Your task to perform on an android device: open device folders in google photos Image 0: 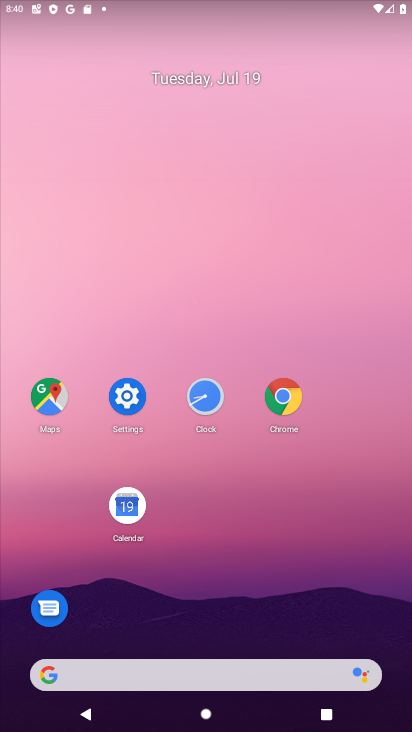
Step 0: drag from (391, 677) to (296, 205)
Your task to perform on an android device: open device folders in google photos Image 1: 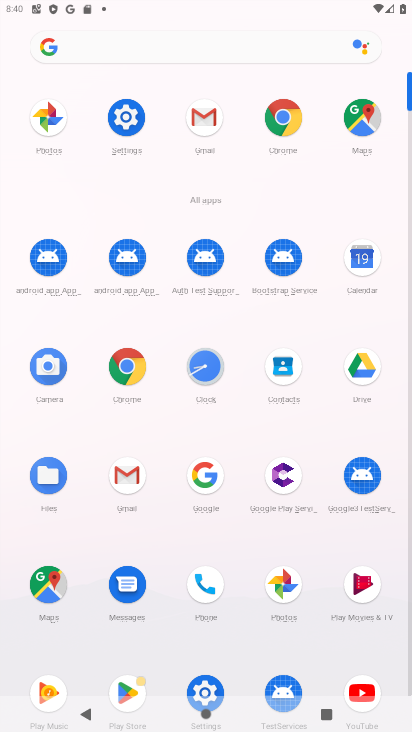
Step 1: click (285, 589)
Your task to perform on an android device: open device folders in google photos Image 2: 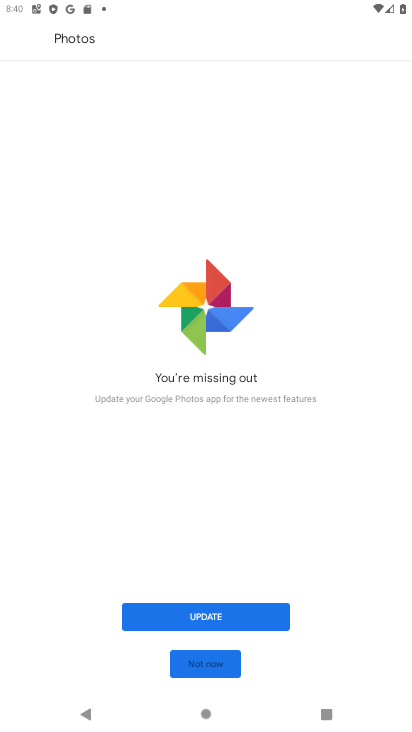
Step 2: click (223, 614)
Your task to perform on an android device: open device folders in google photos Image 3: 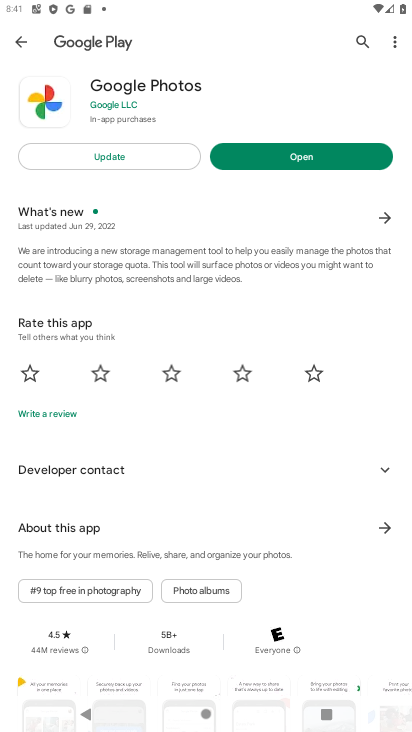
Step 3: click (167, 153)
Your task to perform on an android device: open device folders in google photos Image 4: 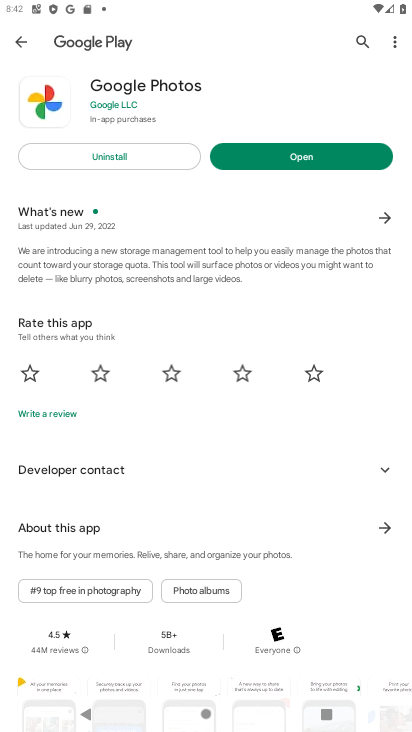
Step 4: click (273, 154)
Your task to perform on an android device: open device folders in google photos Image 5: 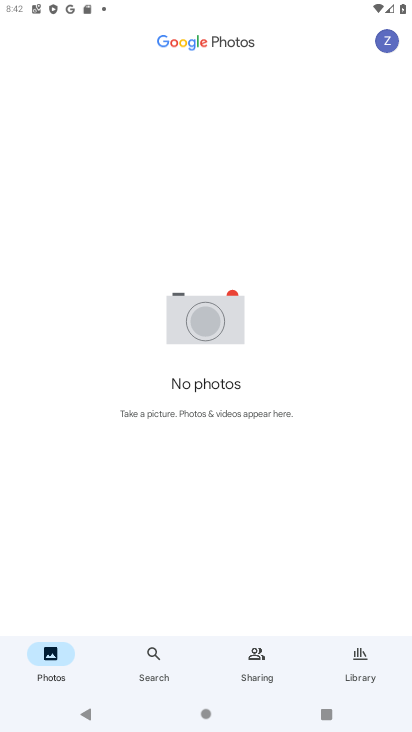
Step 5: click (45, 666)
Your task to perform on an android device: open device folders in google photos Image 6: 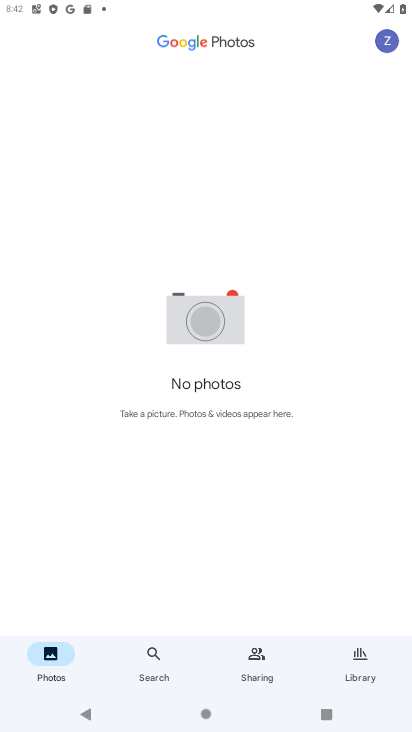
Step 6: task complete